Your task to perform on an android device: Check the weather Image 0: 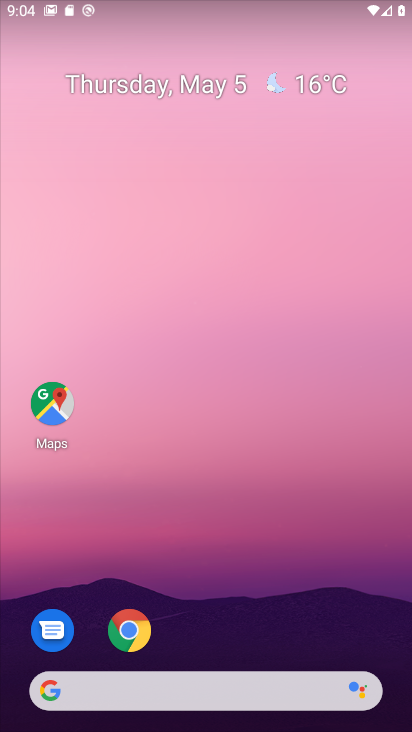
Step 0: drag from (287, 415) to (333, 14)
Your task to perform on an android device: Check the weather Image 1: 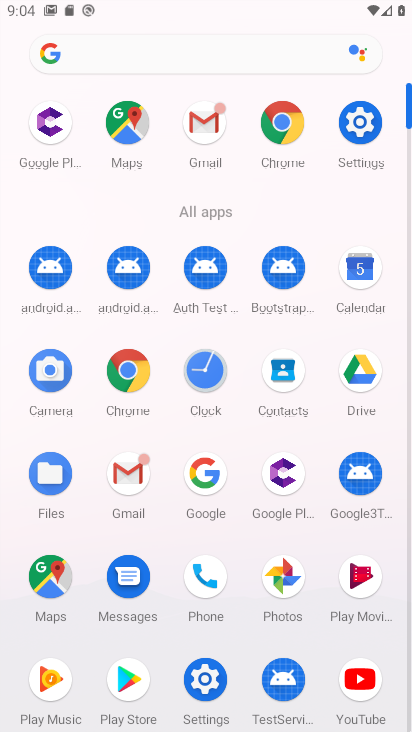
Step 1: press home button
Your task to perform on an android device: Check the weather Image 2: 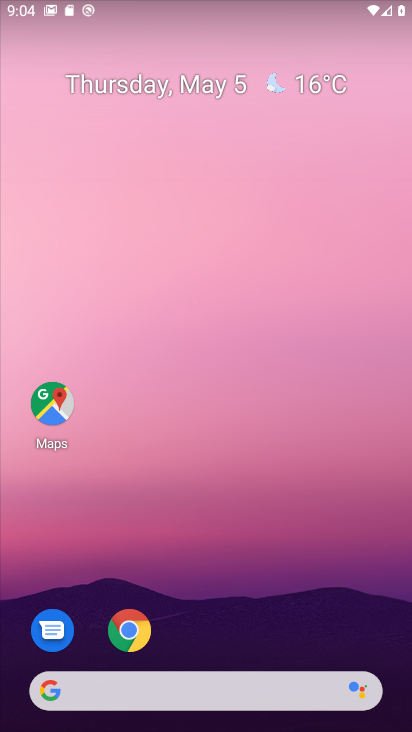
Step 2: click (307, 93)
Your task to perform on an android device: Check the weather Image 3: 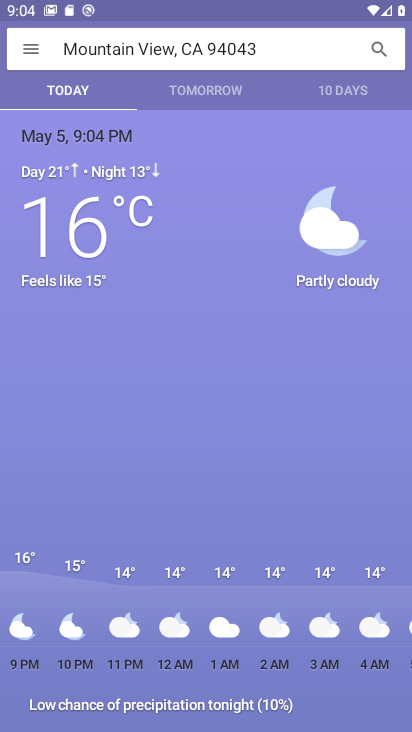
Step 3: task complete